Your task to perform on an android device: Open the stopwatch Image 0: 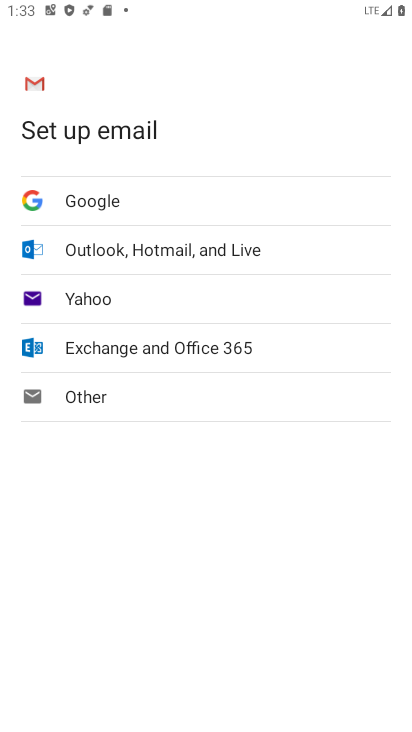
Step 0: press home button
Your task to perform on an android device: Open the stopwatch Image 1: 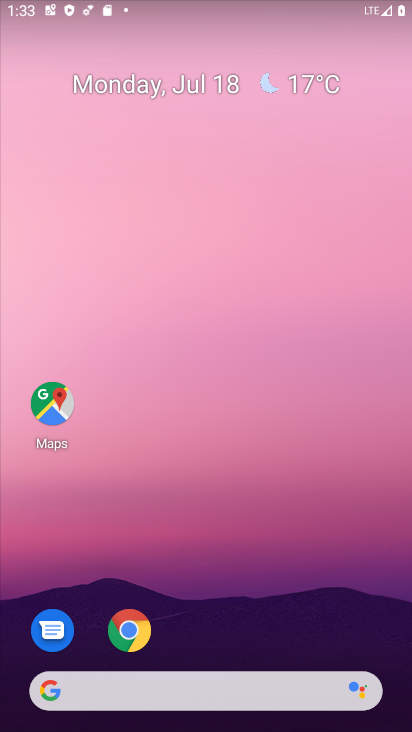
Step 1: drag from (272, 568) to (215, 51)
Your task to perform on an android device: Open the stopwatch Image 2: 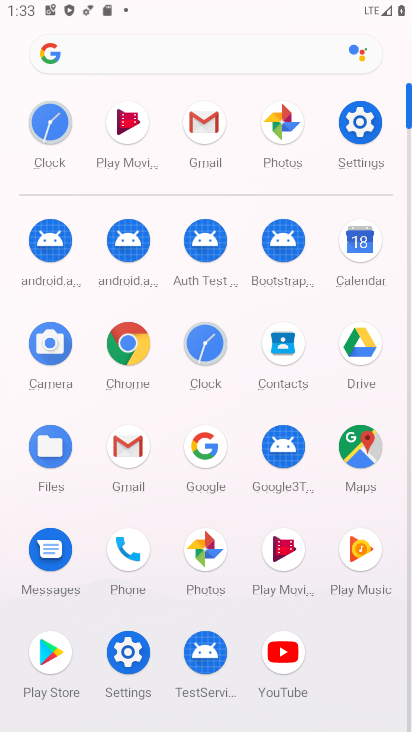
Step 2: click (216, 338)
Your task to perform on an android device: Open the stopwatch Image 3: 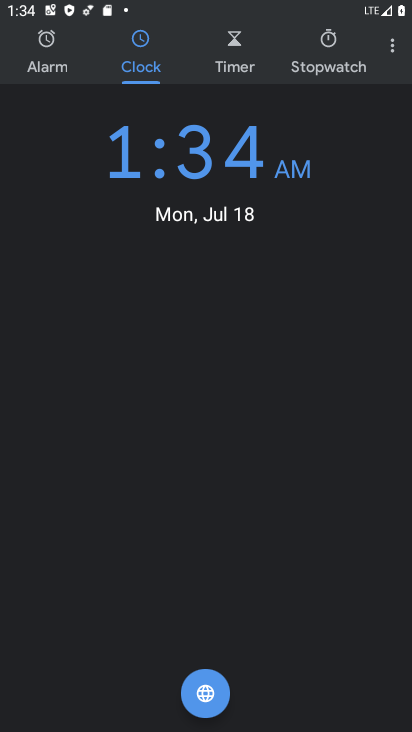
Step 3: click (391, 39)
Your task to perform on an android device: Open the stopwatch Image 4: 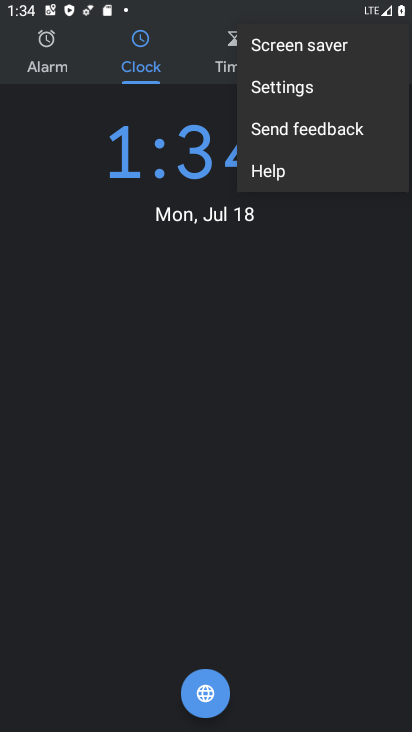
Step 4: click (305, 283)
Your task to perform on an android device: Open the stopwatch Image 5: 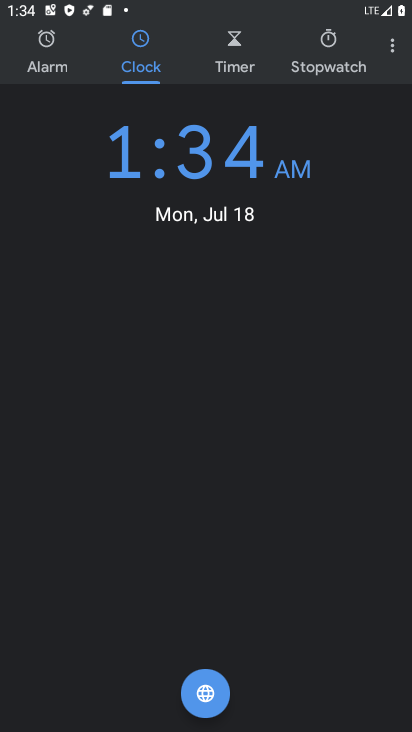
Step 5: click (326, 62)
Your task to perform on an android device: Open the stopwatch Image 6: 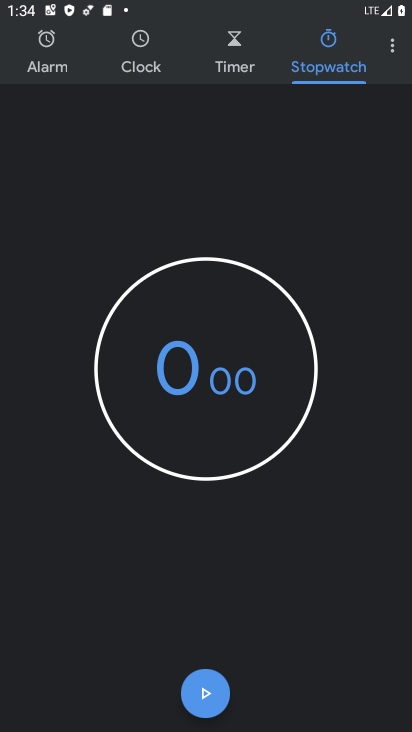
Step 6: task complete